Your task to perform on an android device: Go to location settings Image 0: 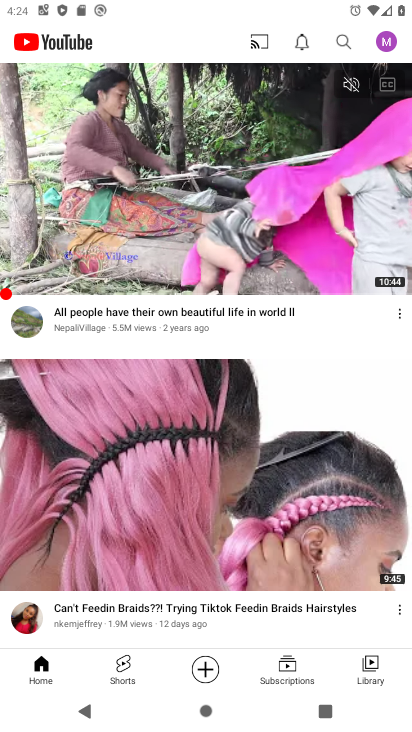
Step 0: press home button
Your task to perform on an android device: Go to location settings Image 1: 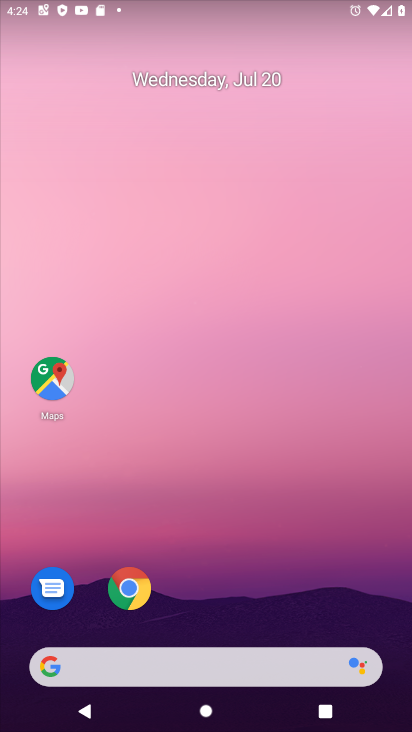
Step 1: drag from (284, 545) to (316, 129)
Your task to perform on an android device: Go to location settings Image 2: 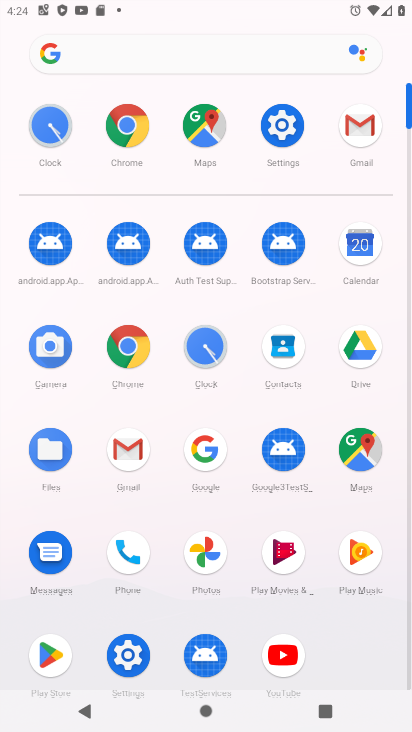
Step 2: click (286, 135)
Your task to perform on an android device: Go to location settings Image 3: 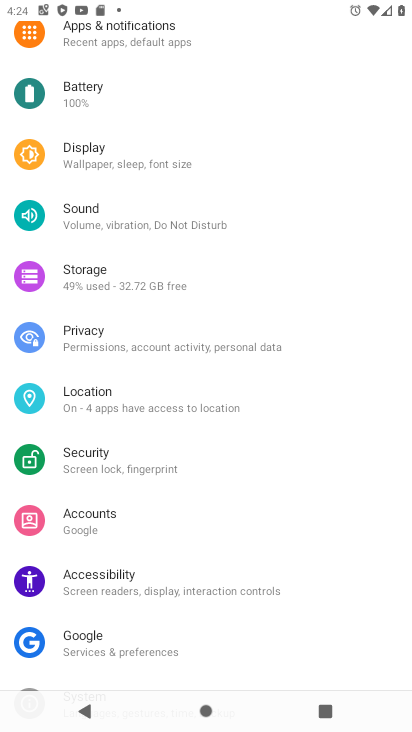
Step 3: click (129, 387)
Your task to perform on an android device: Go to location settings Image 4: 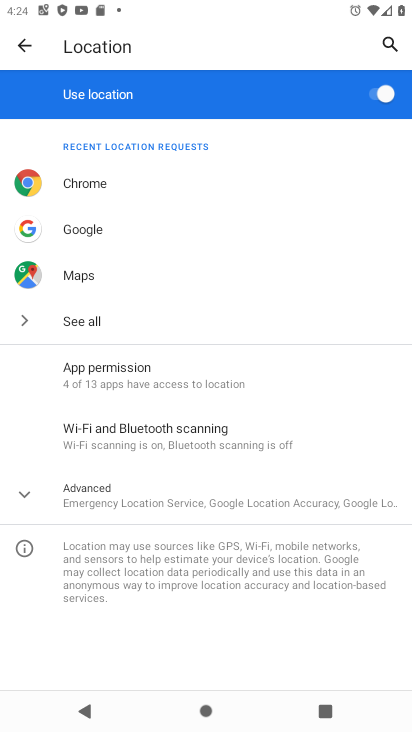
Step 4: task complete